Your task to perform on an android device: Find coffee shops on Maps Image 0: 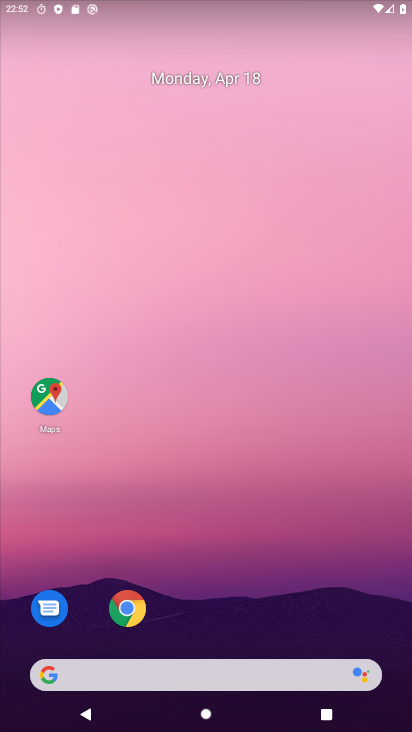
Step 0: click (45, 399)
Your task to perform on an android device: Find coffee shops on Maps Image 1: 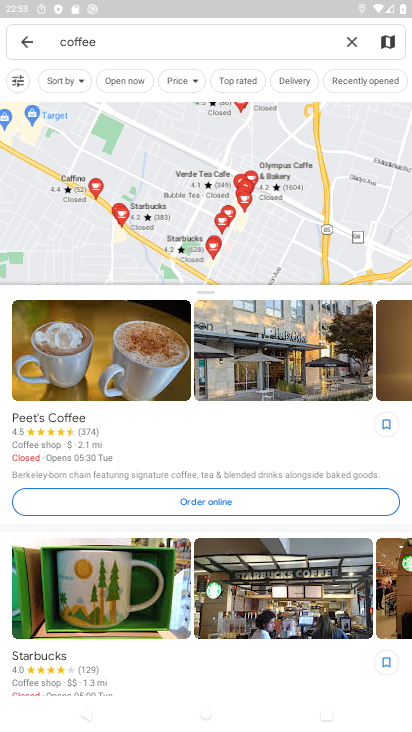
Step 1: task complete